Your task to perform on an android device: open app "Venmo" (install if not already installed) and enter user name: "bleedings@gmail.com" and password: "copied" Image 0: 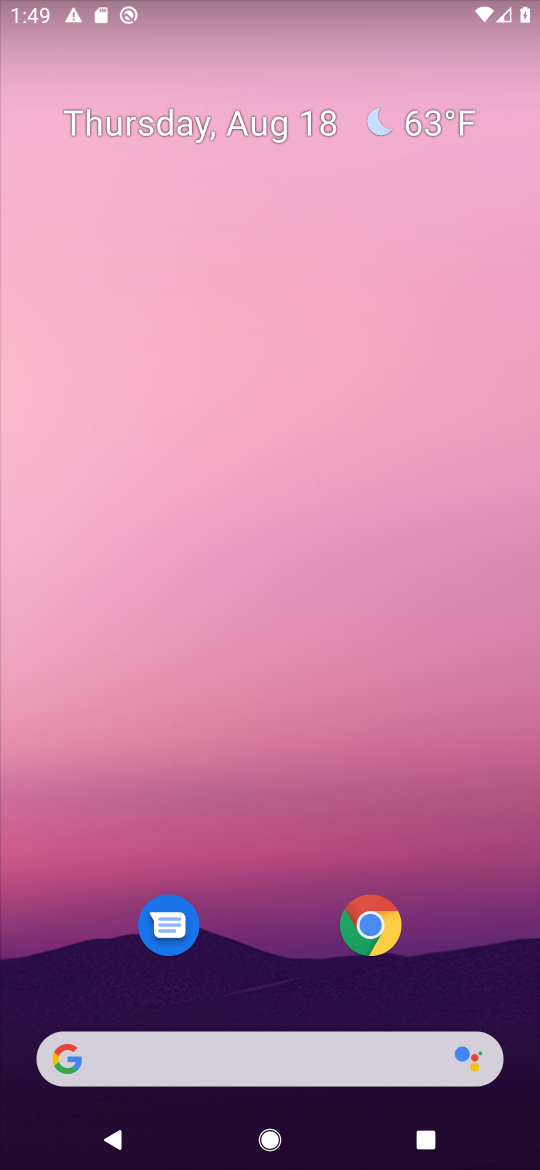
Step 0: drag from (257, 894) to (381, 9)
Your task to perform on an android device: open app "Venmo" (install if not already installed) and enter user name: "bleedings@gmail.com" and password: "copied" Image 1: 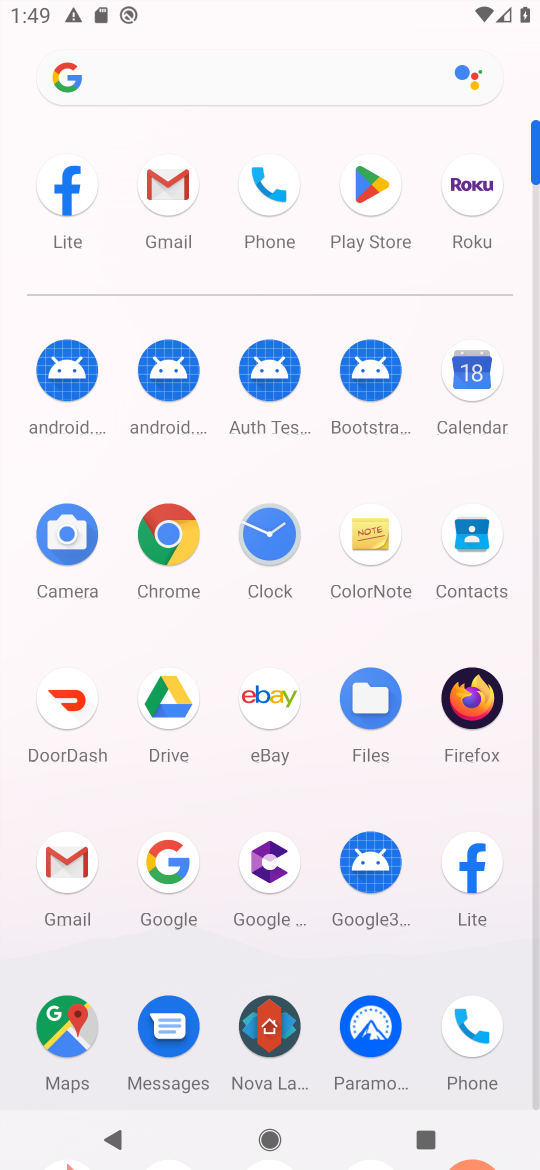
Step 1: click (369, 319)
Your task to perform on an android device: open app "Venmo" (install if not already installed) and enter user name: "bleedings@gmail.com" and password: "copied" Image 2: 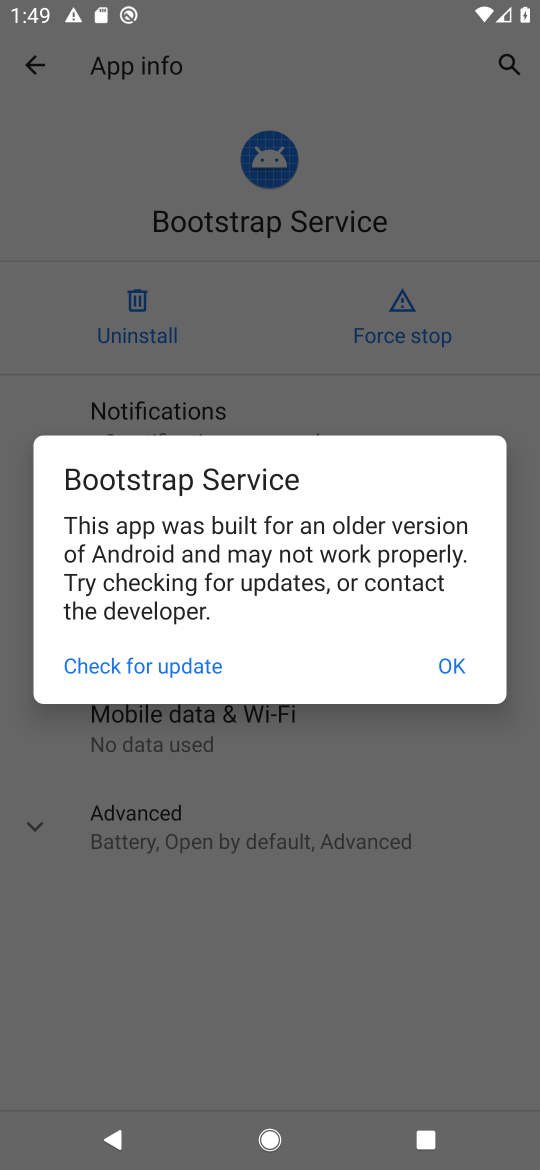
Step 2: press back button
Your task to perform on an android device: open app "Venmo" (install if not already installed) and enter user name: "bleedings@gmail.com" and password: "copied" Image 3: 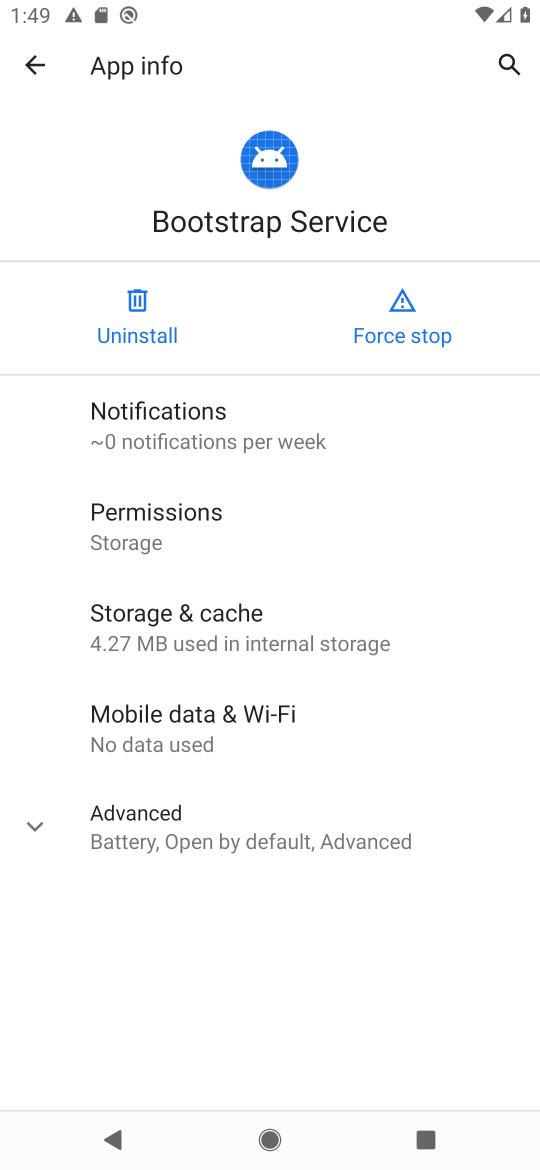
Step 3: click (42, 74)
Your task to perform on an android device: open app "Venmo" (install if not already installed) and enter user name: "bleedings@gmail.com" and password: "copied" Image 4: 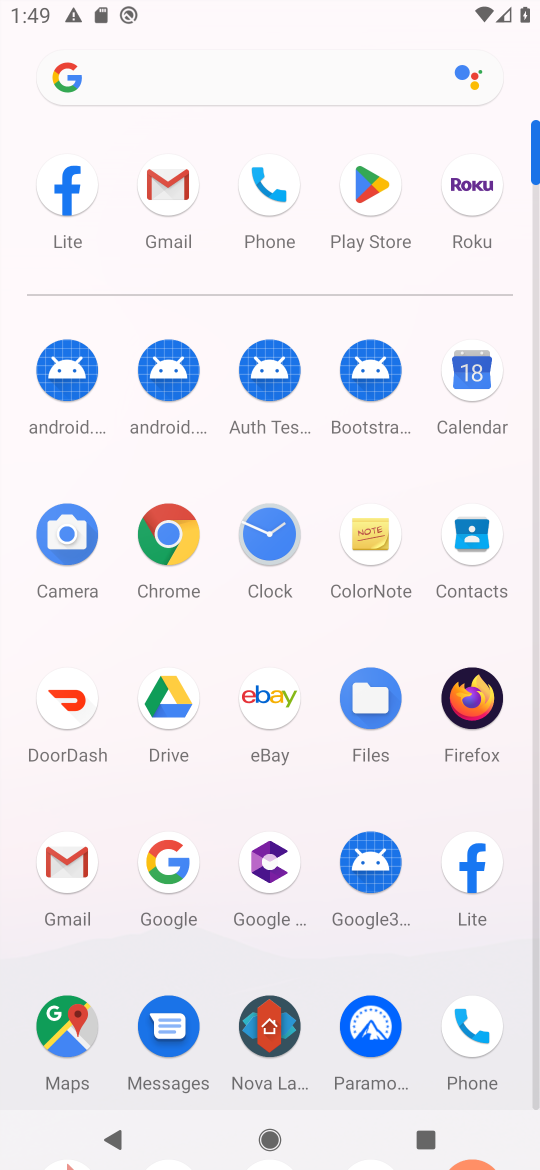
Step 4: click (384, 193)
Your task to perform on an android device: open app "Venmo" (install if not already installed) and enter user name: "bleedings@gmail.com" and password: "copied" Image 5: 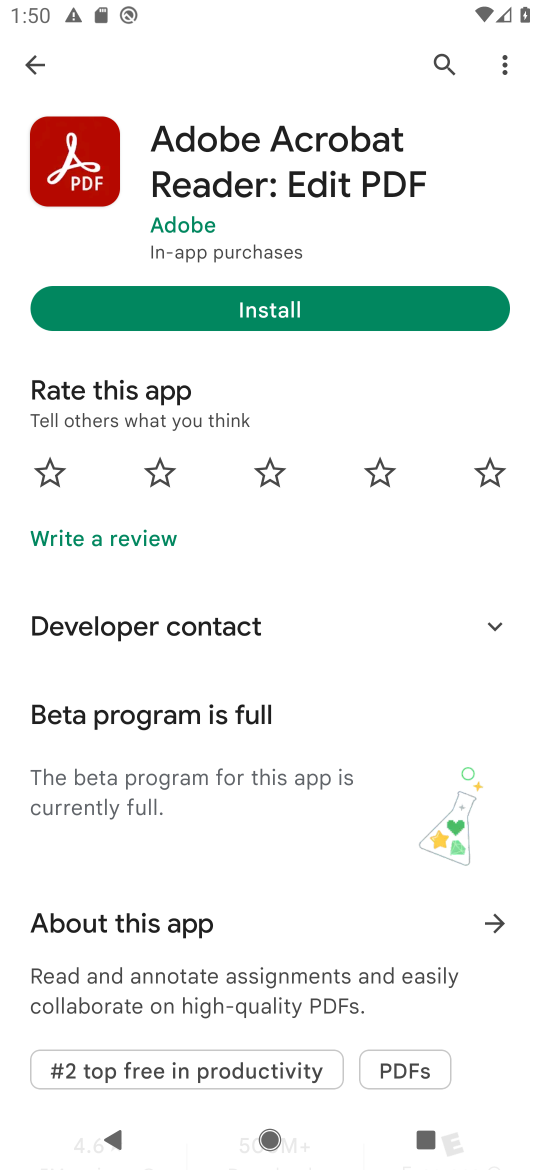
Step 5: click (25, 64)
Your task to perform on an android device: open app "Venmo" (install if not already installed) and enter user name: "bleedings@gmail.com" and password: "copied" Image 6: 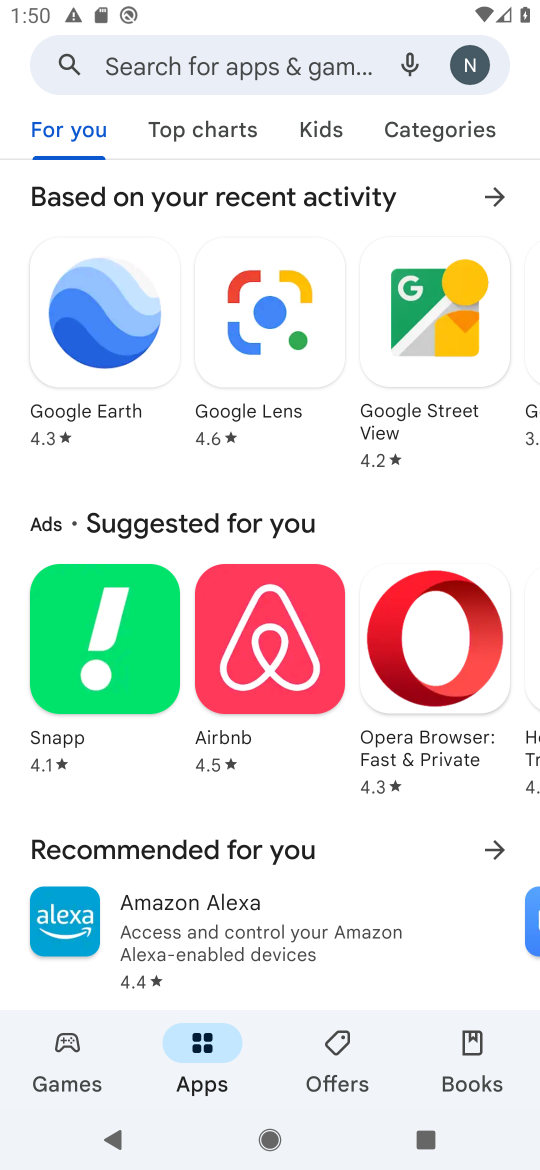
Step 6: click (270, 53)
Your task to perform on an android device: open app "Venmo" (install if not already installed) and enter user name: "bleedings@gmail.com" and password: "copied" Image 7: 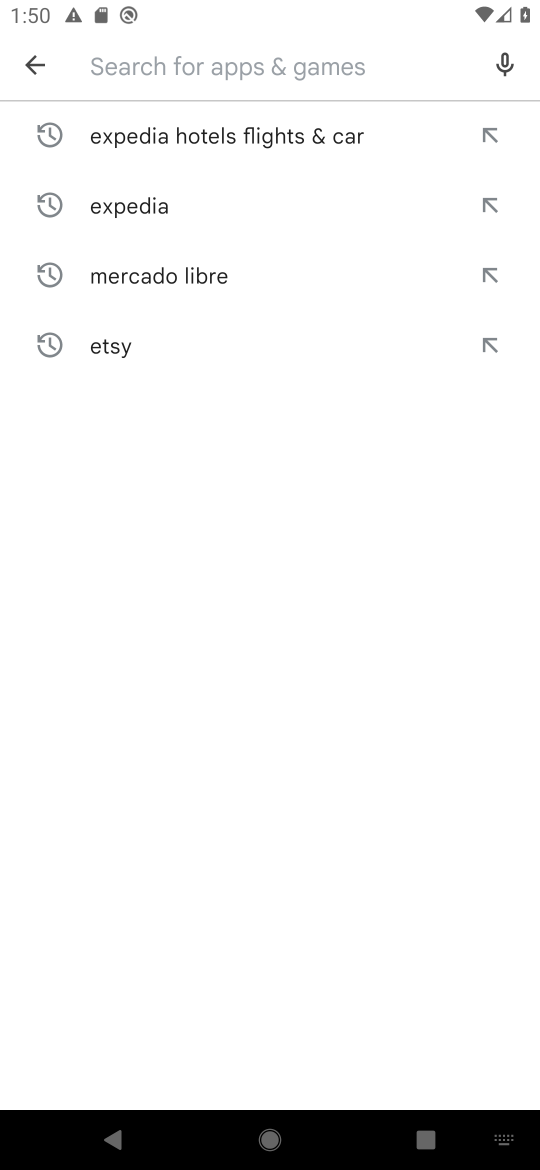
Step 7: type "Venmo"
Your task to perform on an android device: open app "Venmo" (install if not already installed) and enter user name: "bleedings@gmail.com" and password: "copied" Image 8: 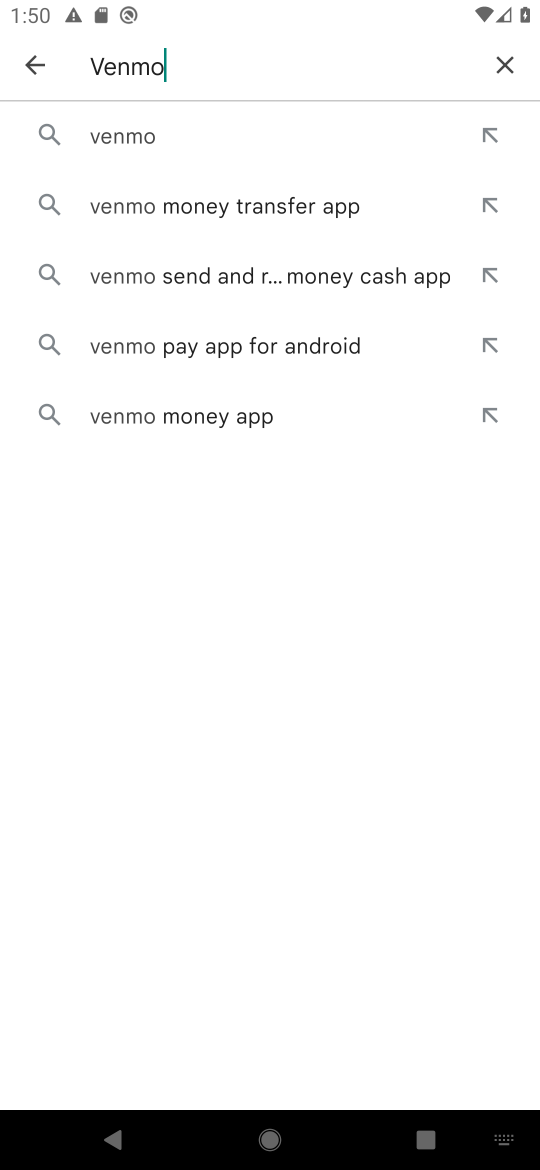
Step 8: click (145, 132)
Your task to perform on an android device: open app "Venmo" (install if not already installed) and enter user name: "bleedings@gmail.com" and password: "copied" Image 9: 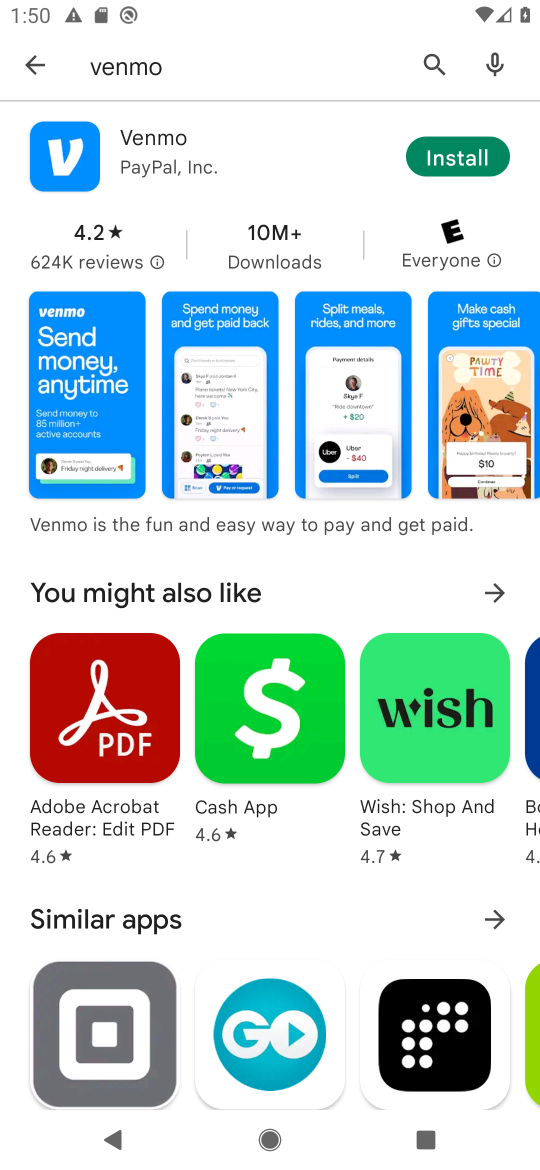
Step 9: click (469, 152)
Your task to perform on an android device: open app "Venmo" (install if not already installed) and enter user name: "bleedings@gmail.com" and password: "copied" Image 10: 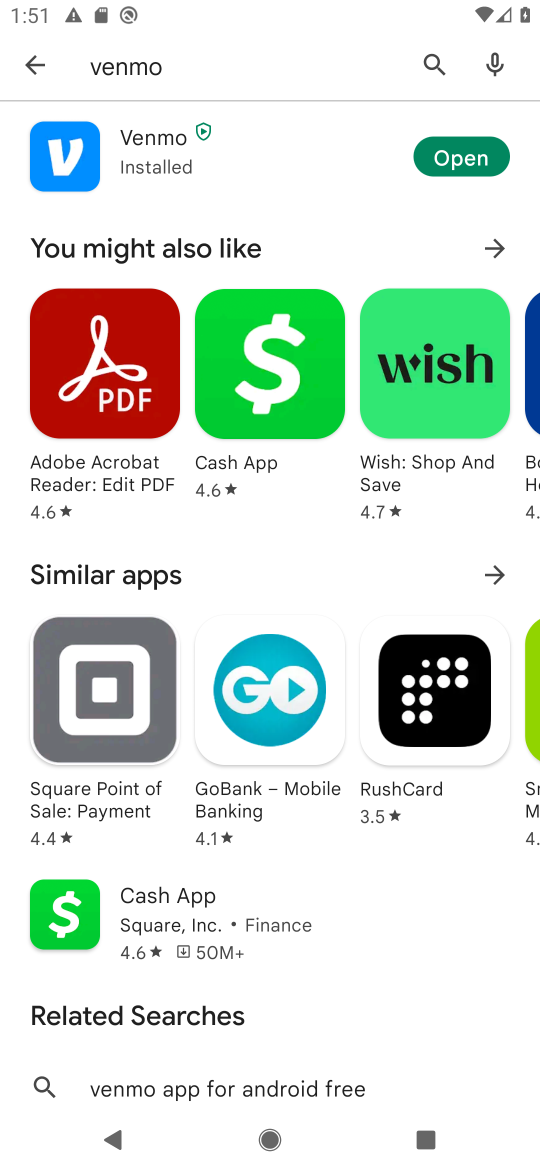
Step 10: click (469, 152)
Your task to perform on an android device: open app "Venmo" (install if not already installed) and enter user name: "bleedings@gmail.com" and password: "copied" Image 11: 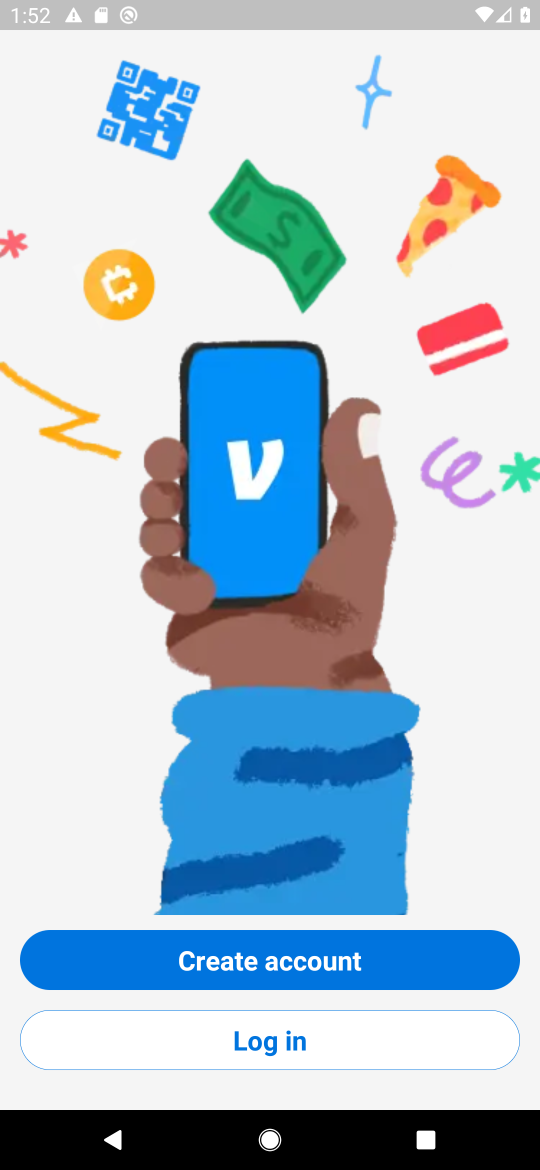
Step 11: click (288, 1044)
Your task to perform on an android device: open app "Venmo" (install if not already installed) and enter user name: "bleedings@gmail.com" and password: "copied" Image 12: 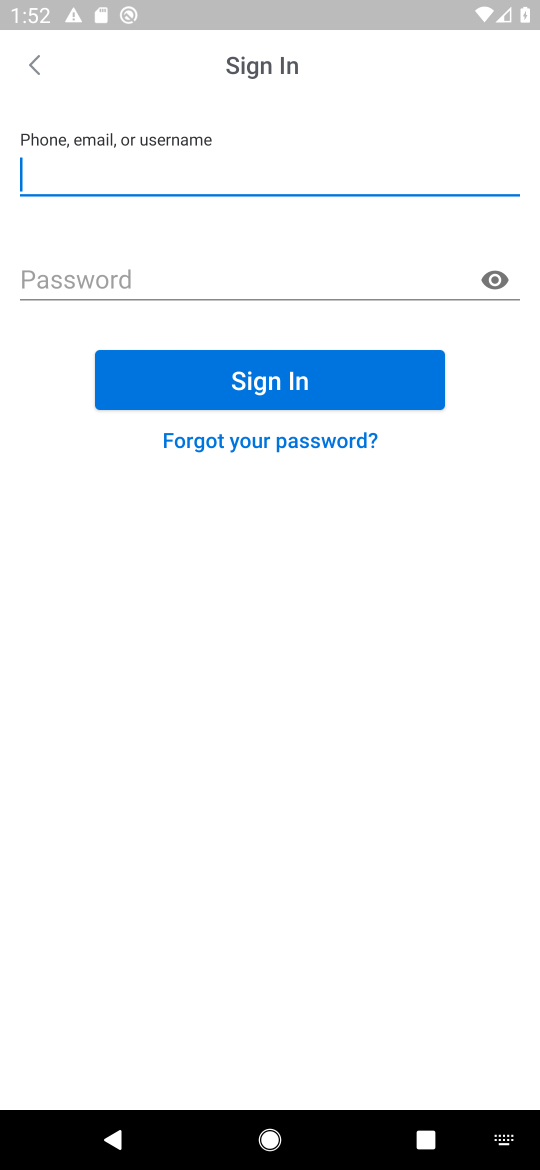
Step 12: type "bleedings@gmail.com"
Your task to perform on an android device: open app "Venmo" (install if not already installed) and enter user name: "bleedings@gmail.com" and password: "copied" Image 13: 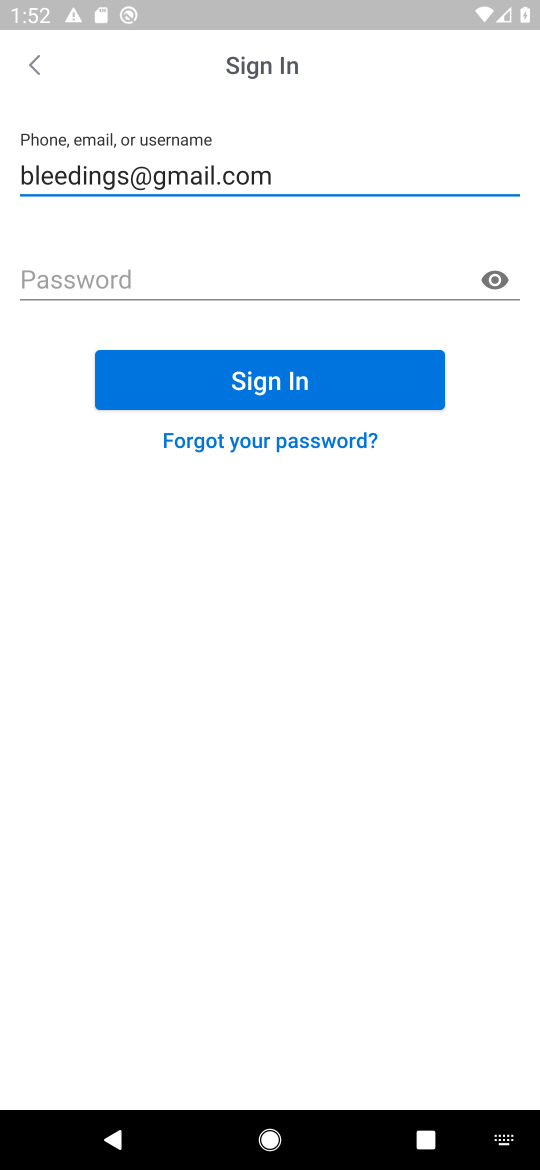
Step 13: click (283, 259)
Your task to perform on an android device: open app "Venmo" (install if not already installed) and enter user name: "bleedings@gmail.com" and password: "copied" Image 14: 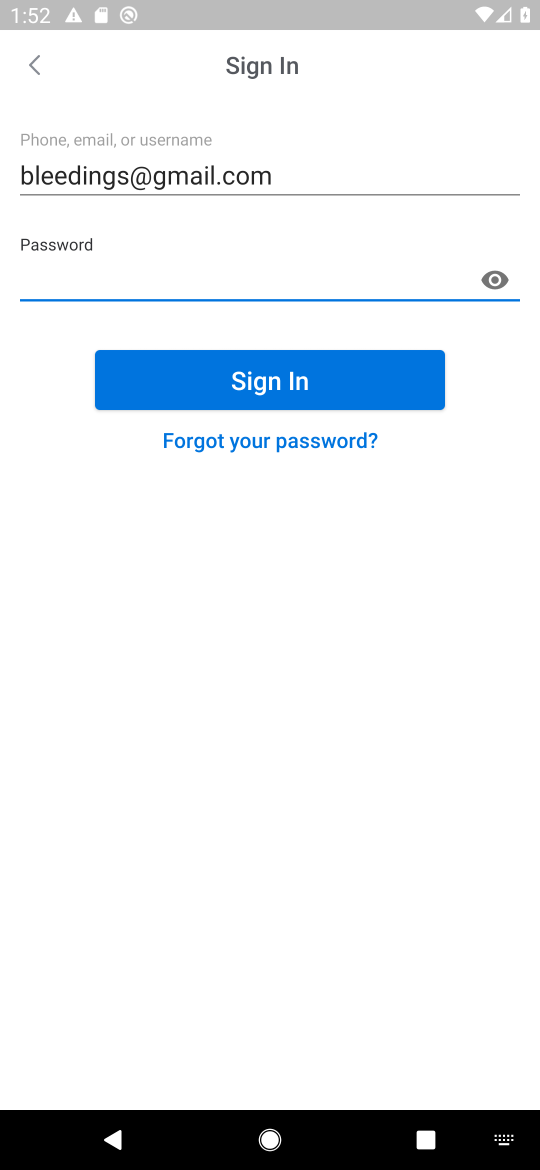
Step 14: type "copied"
Your task to perform on an android device: open app "Venmo" (install if not already installed) and enter user name: "bleedings@gmail.com" and password: "copied" Image 15: 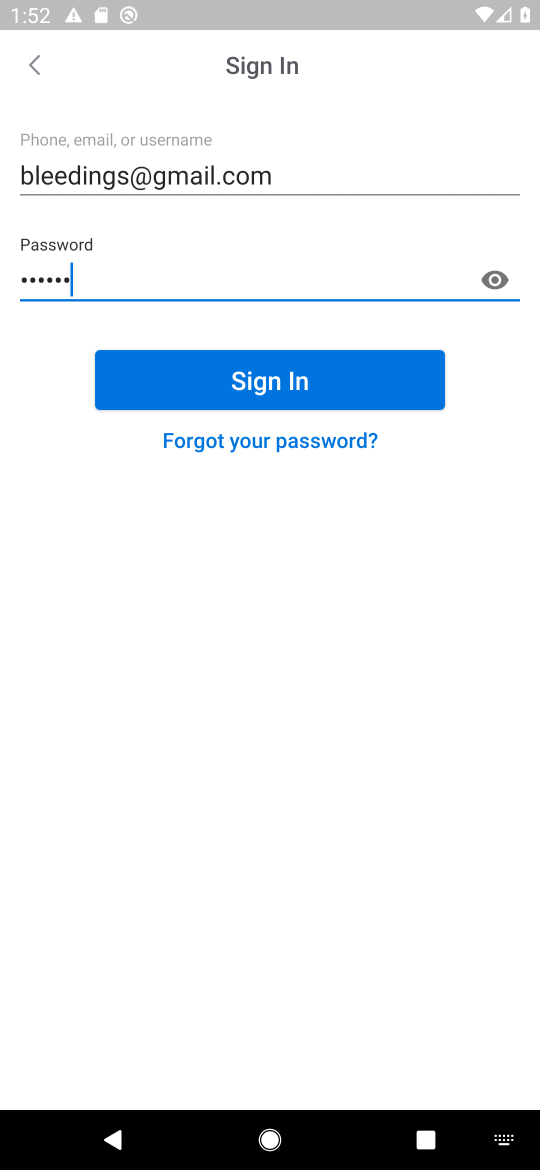
Step 15: click (274, 374)
Your task to perform on an android device: open app "Venmo" (install if not already installed) and enter user name: "bleedings@gmail.com" and password: "copied" Image 16: 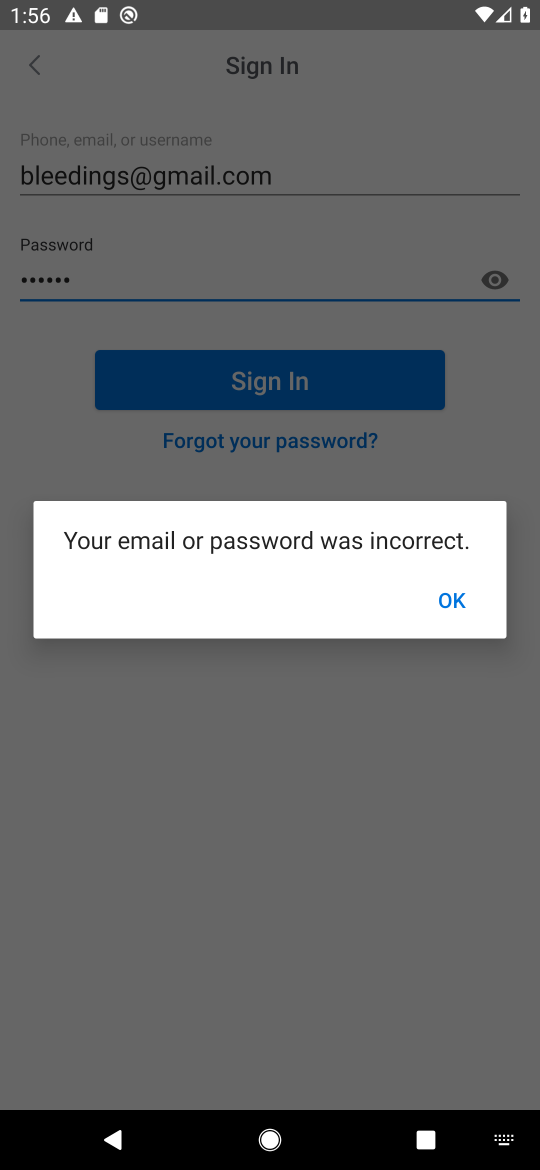
Step 16: click (459, 592)
Your task to perform on an android device: open app "Venmo" (install if not already installed) and enter user name: "bleedings@gmail.com" and password: "copied" Image 17: 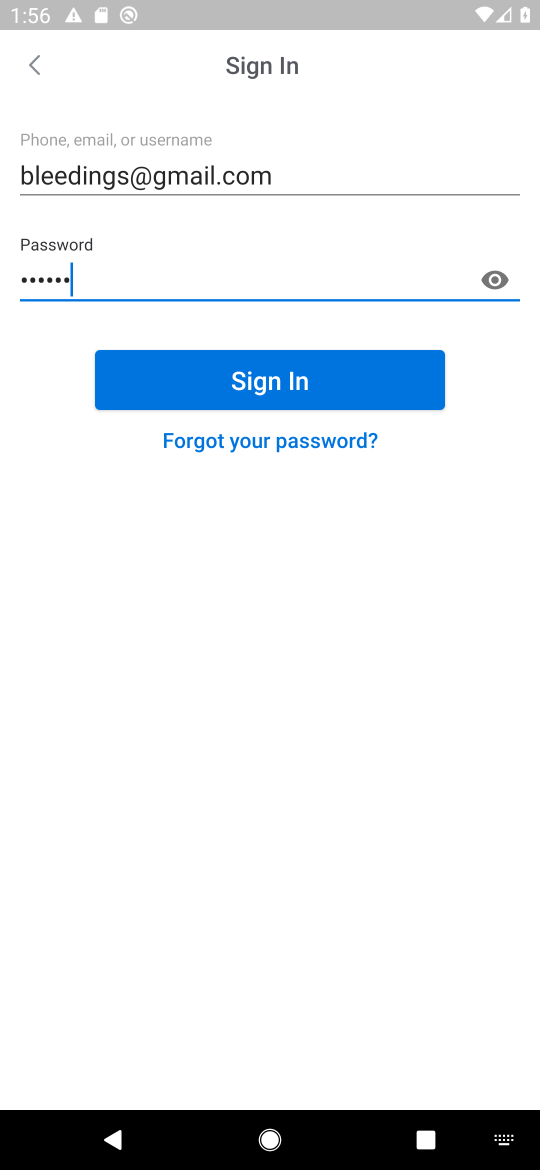
Step 17: task complete